Your task to perform on an android device: delete a single message in the gmail app Image 0: 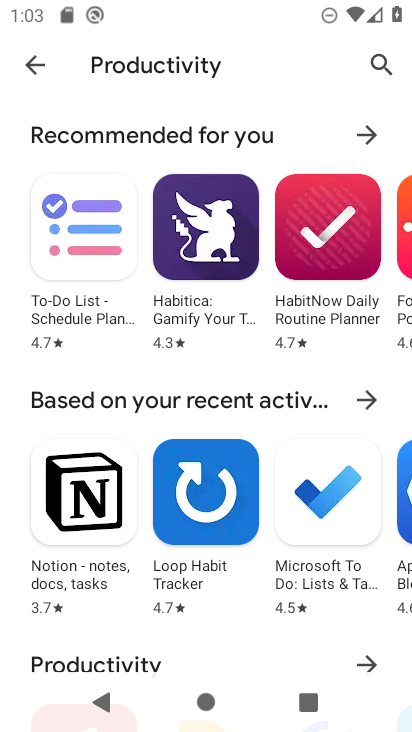
Step 0: press home button
Your task to perform on an android device: delete a single message in the gmail app Image 1: 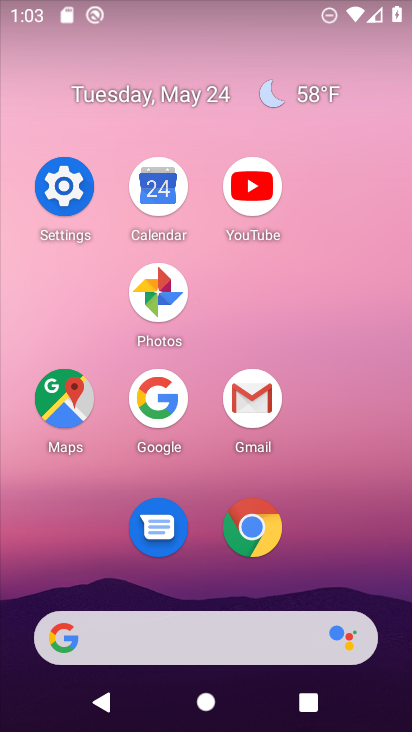
Step 1: click (230, 414)
Your task to perform on an android device: delete a single message in the gmail app Image 2: 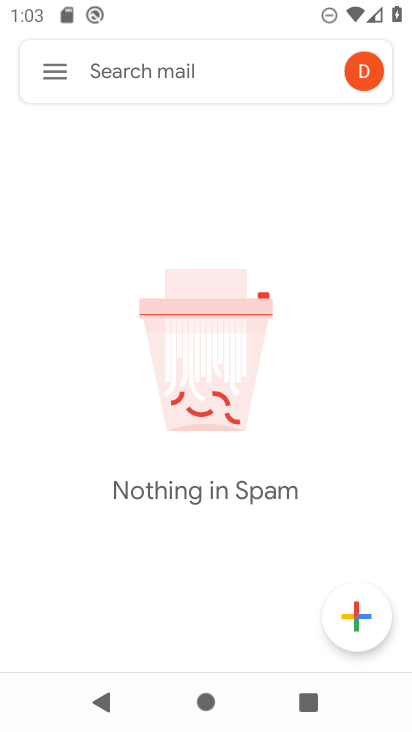
Step 2: click (52, 77)
Your task to perform on an android device: delete a single message in the gmail app Image 3: 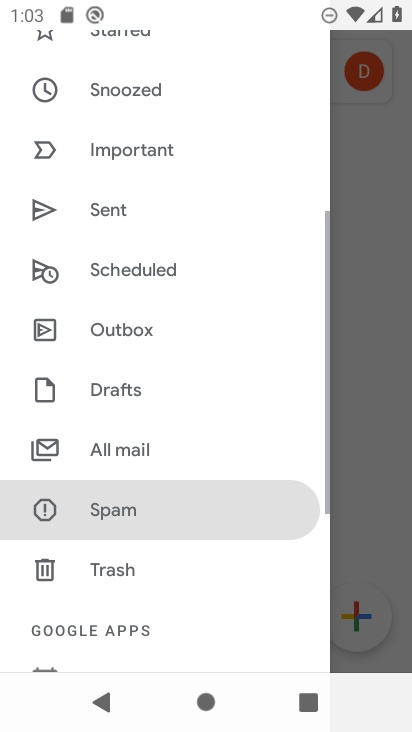
Step 3: click (204, 444)
Your task to perform on an android device: delete a single message in the gmail app Image 4: 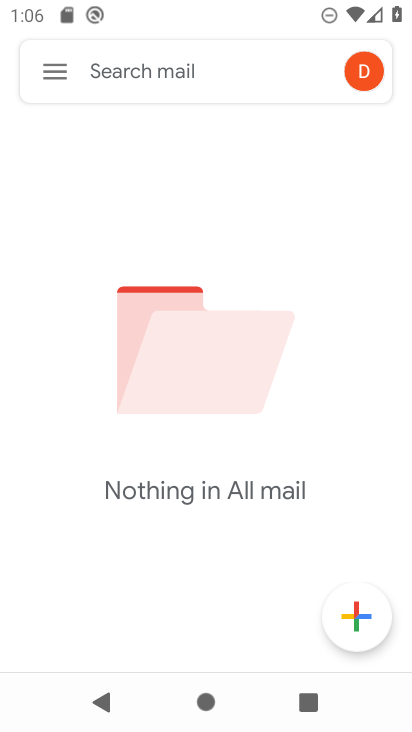
Step 4: task complete